Your task to perform on an android device: open app "Cash App" (install if not already installed) Image 0: 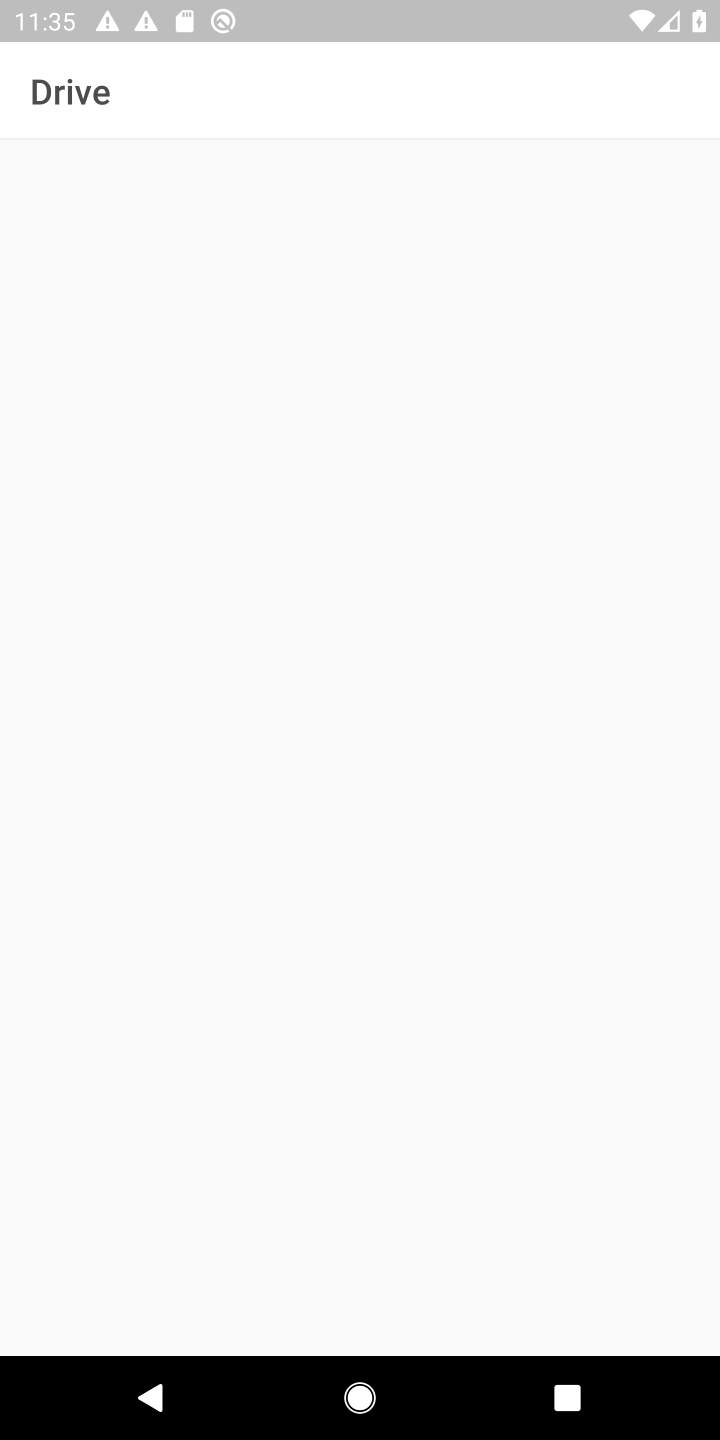
Step 0: press home button
Your task to perform on an android device: open app "Cash App" (install if not already installed) Image 1: 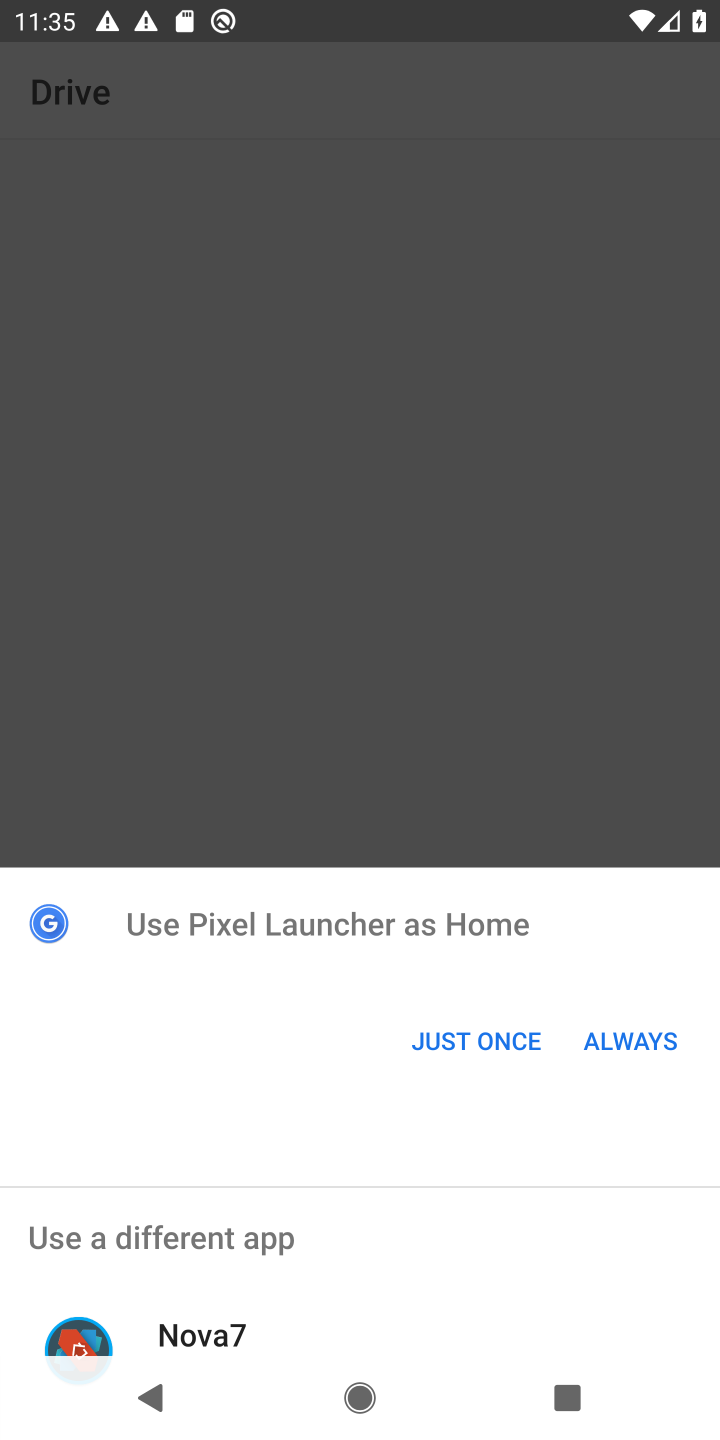
Step 1: press home button
Your task to perform on an android device: open app "Cash App" (install if not already installed) Image 2: 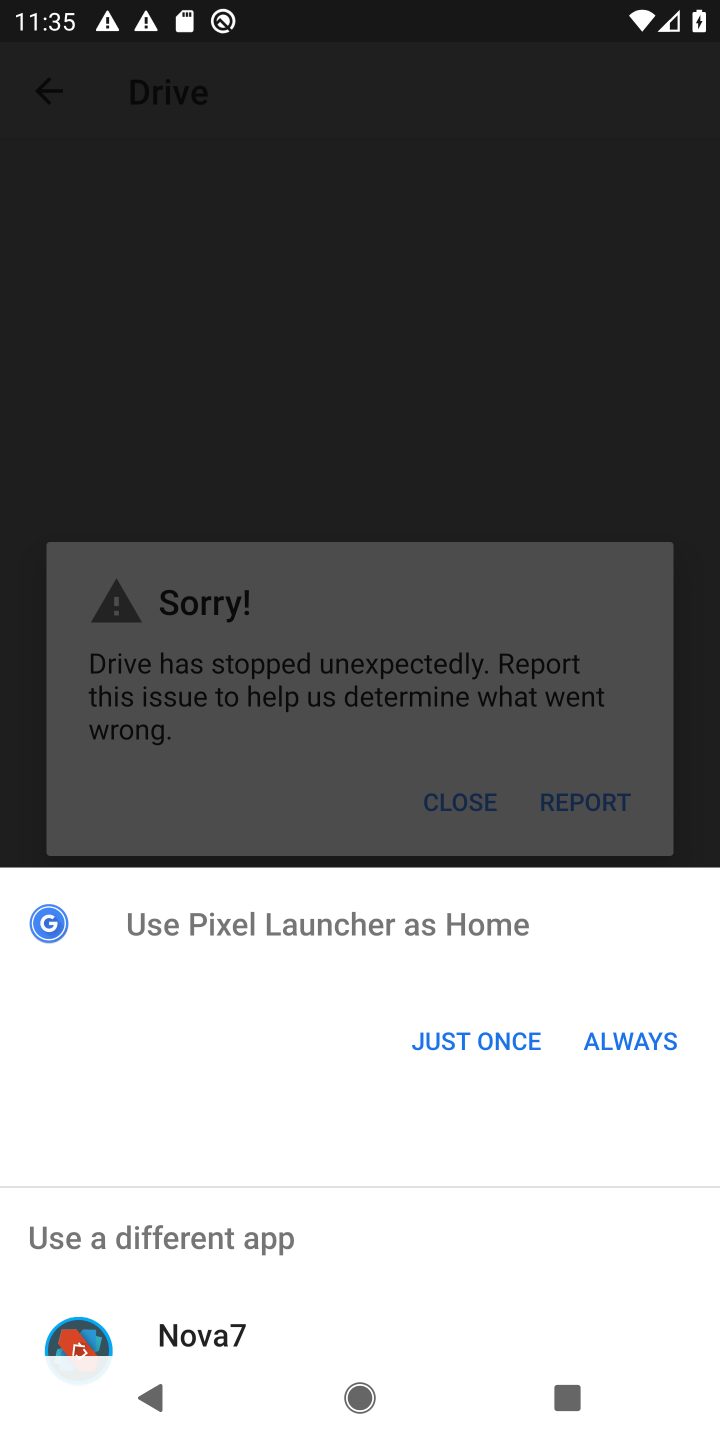
Step 2: press home button
Your task to perform on an android device: open app "Cash App" (install if not already installed) Image 3: 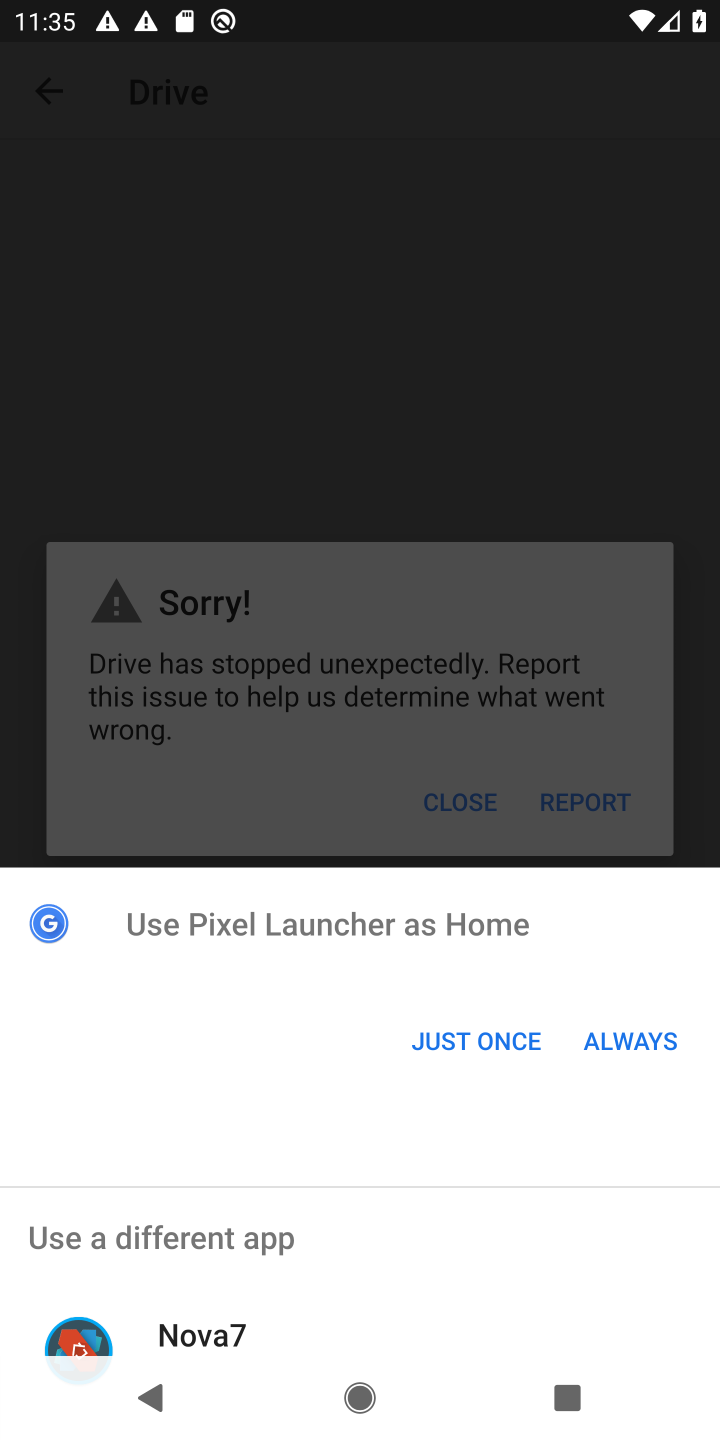
Step 3: press home button
Your task to perform on an android device: open app "Cash App" (install if not already installed) Image 4: 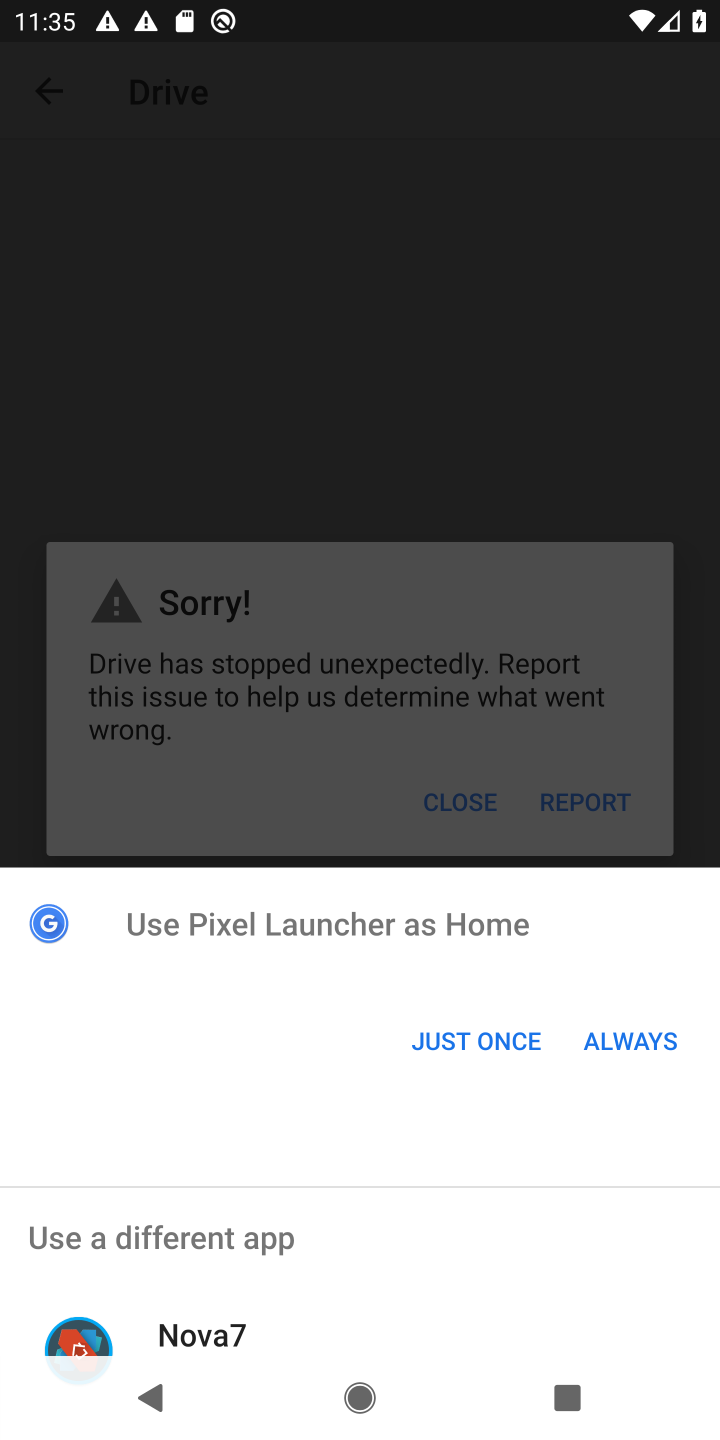
Step 4: click (523, 1032)
Your task to perform on an android device: open app "Cash App" (install if not already installed) Image 5: 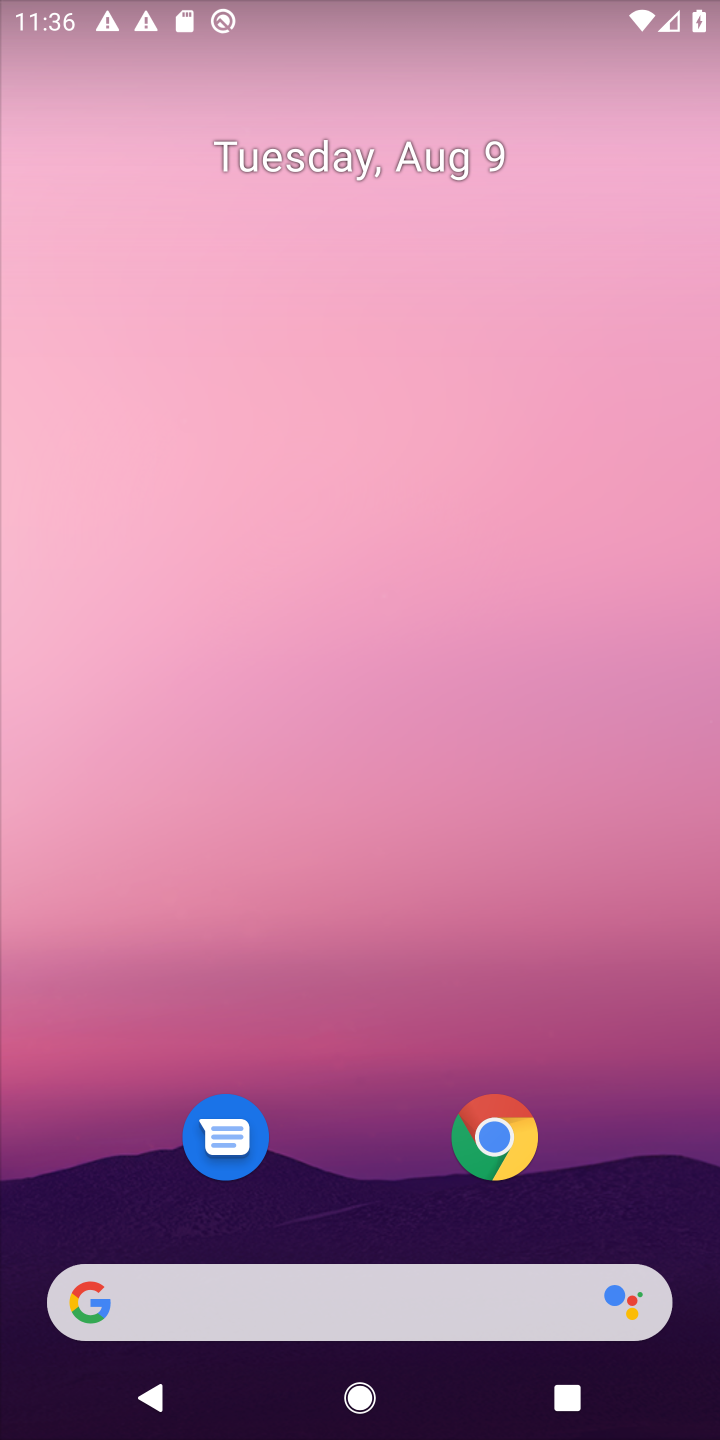
Step 5: drag from (363, 1187) to (416, 229)
Your task to perform on an android device: open app "Cash App" (install if not already installed) Image 6: 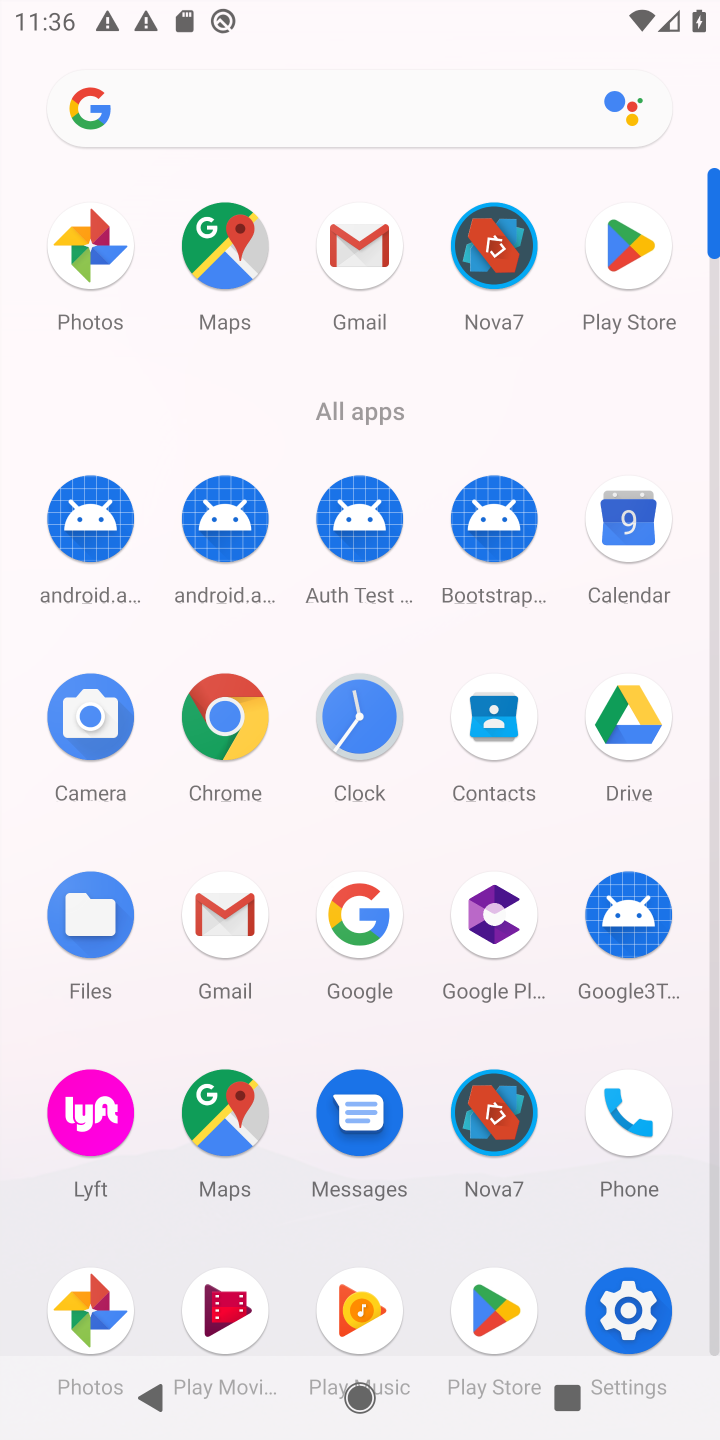
Step 6: click (627, 243)
Your task to perform on an android device: open app "Cash App" (install if not already installed) Image 7: 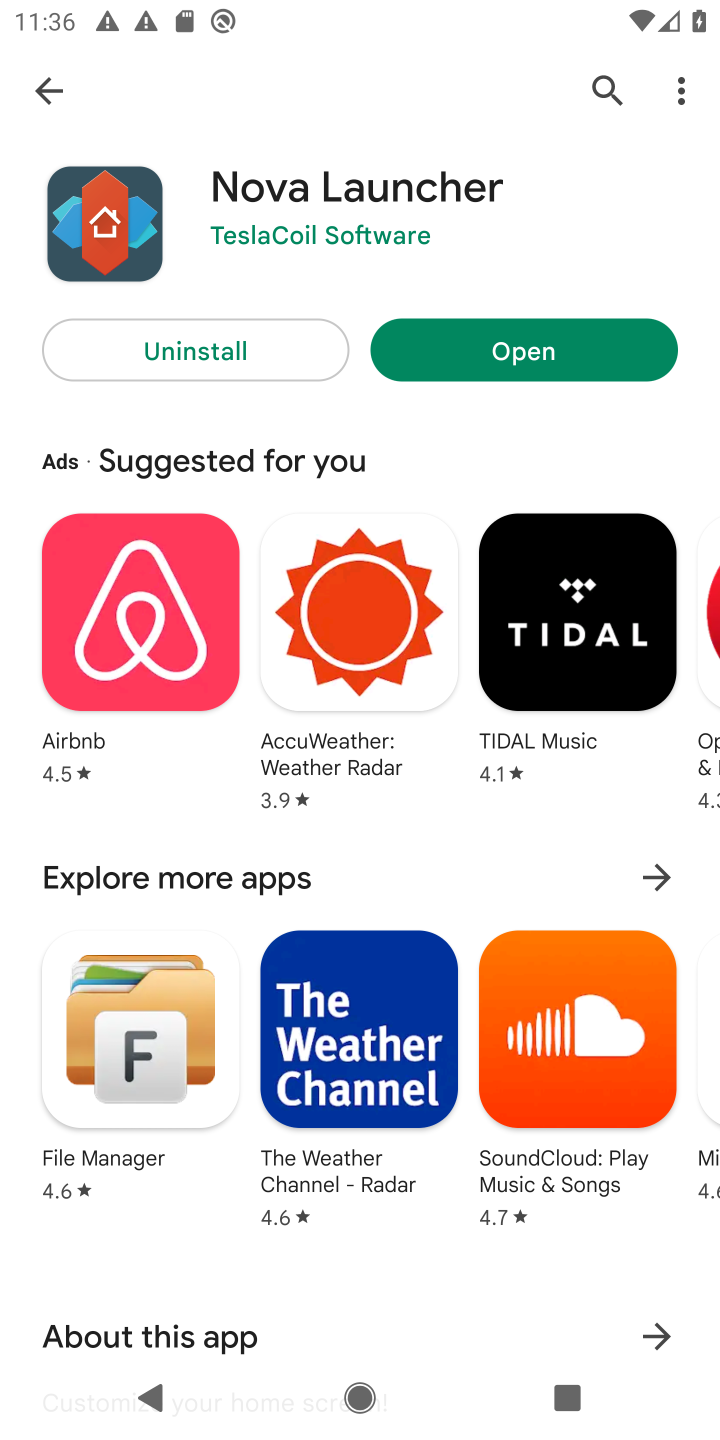
Step 7: click (52, 89)
Your task to perform on an android device: open app "Cash App" (install if not already installed) Image 8: 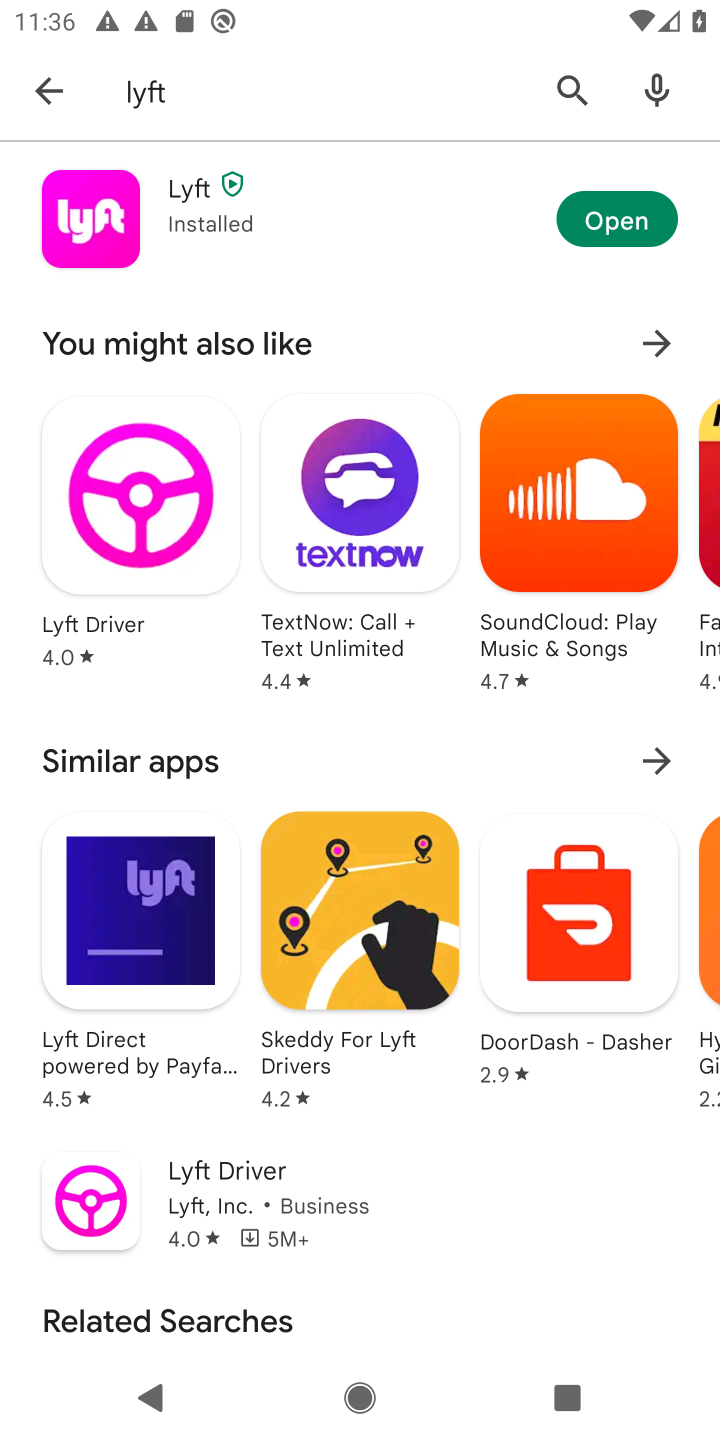
Step 8: click (573, 81)
Your task to perform on an android device: open app "Cash App" (install if not already installed) Image 9: 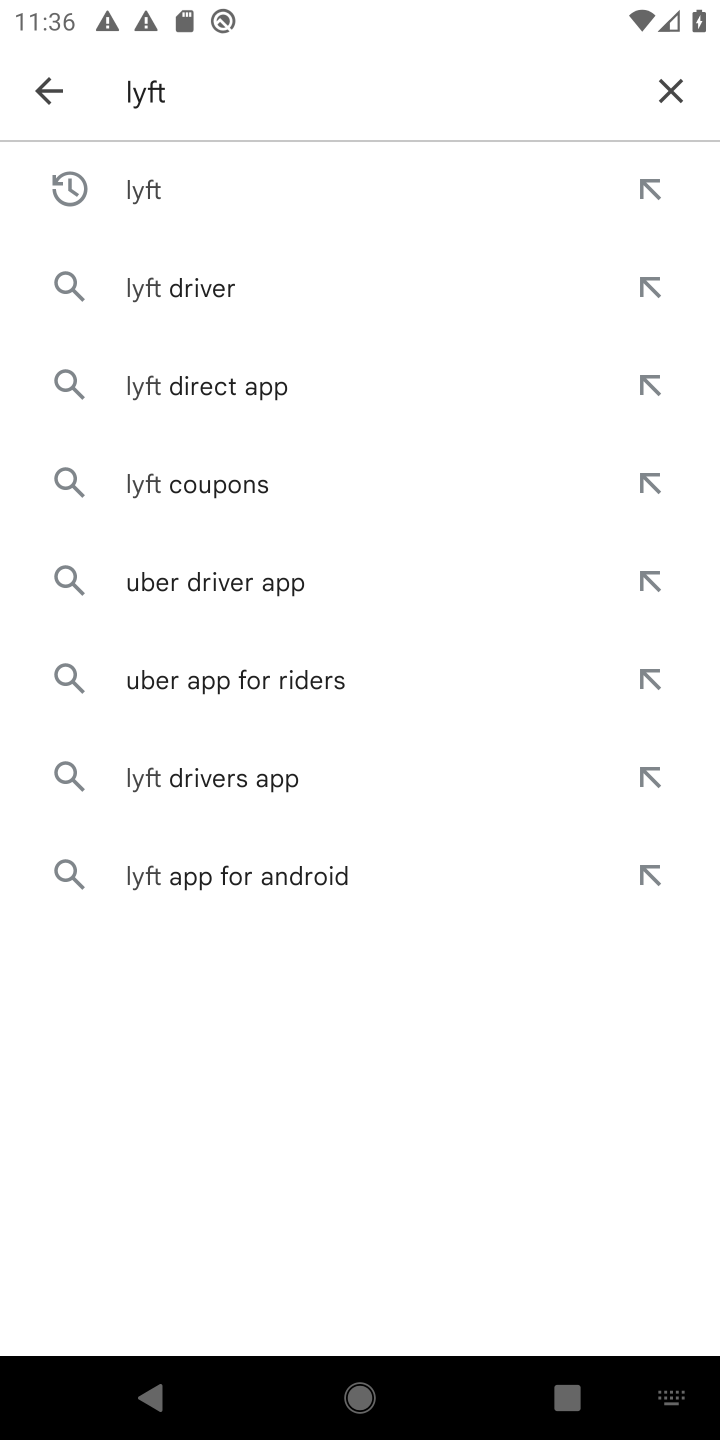
Step 9: click (665, 94)
Your task to perform on an android device: open app "Cash App" (install if not already installed) Image 10: 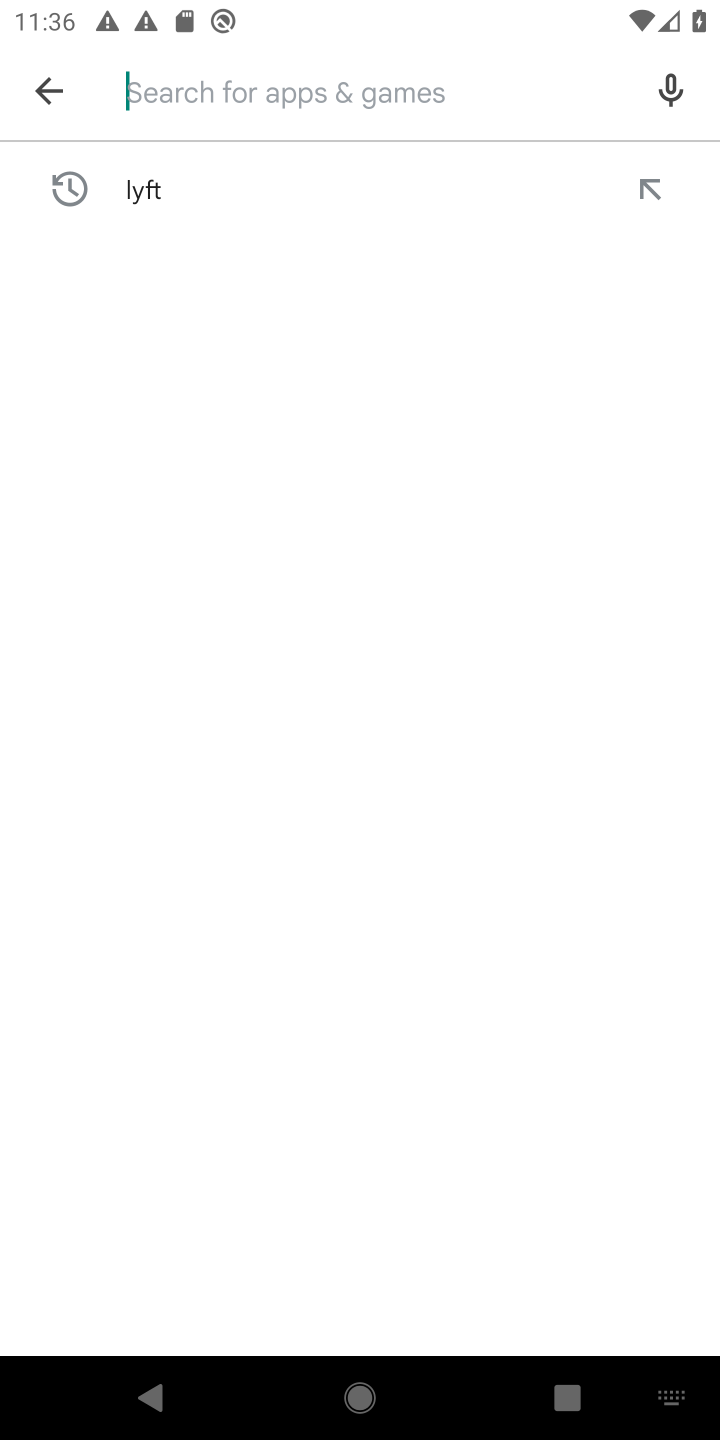
Step 10: type "Cash App"
Your task to perform on an android device: open app "Cash App" (install if not already installed) Image 11: 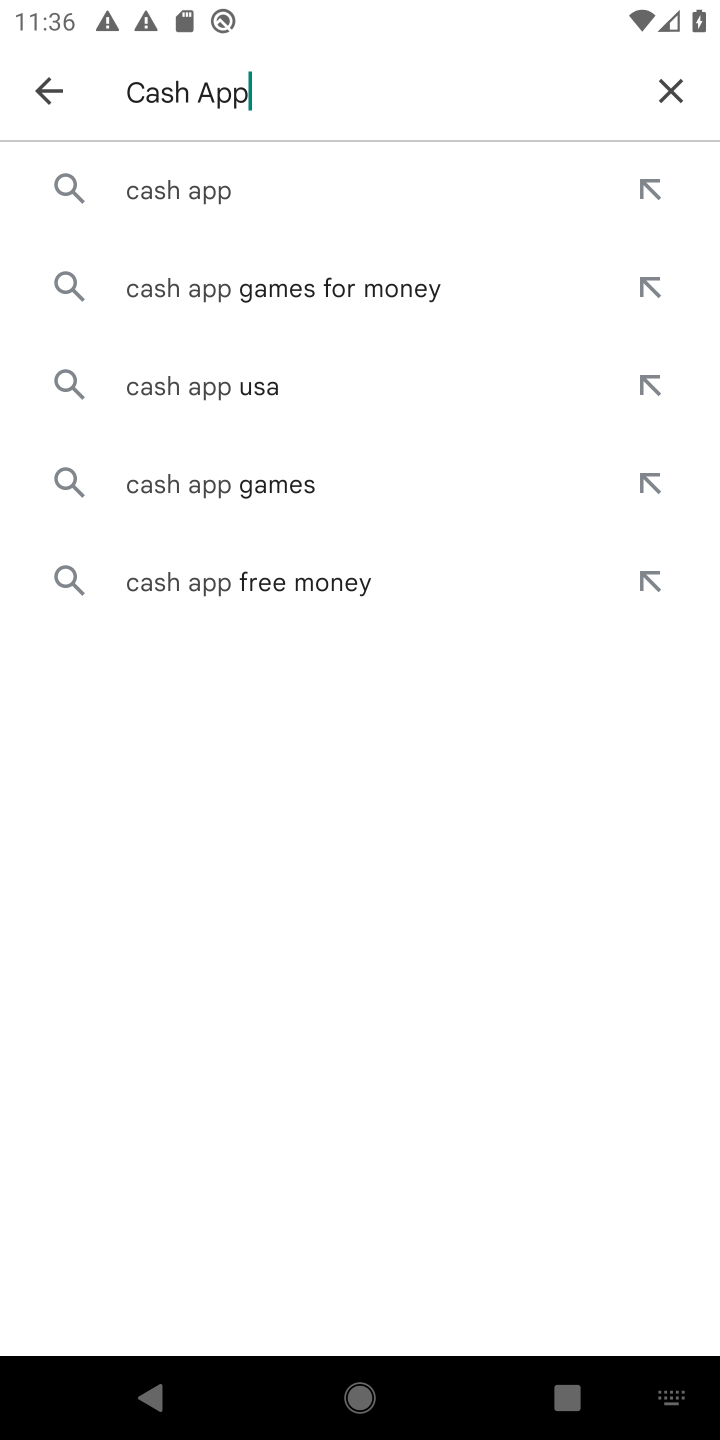
Step 11: click (149, 188)
Your task to perform on an android device: open app "Cash App" (install if not already installed) Image 12: 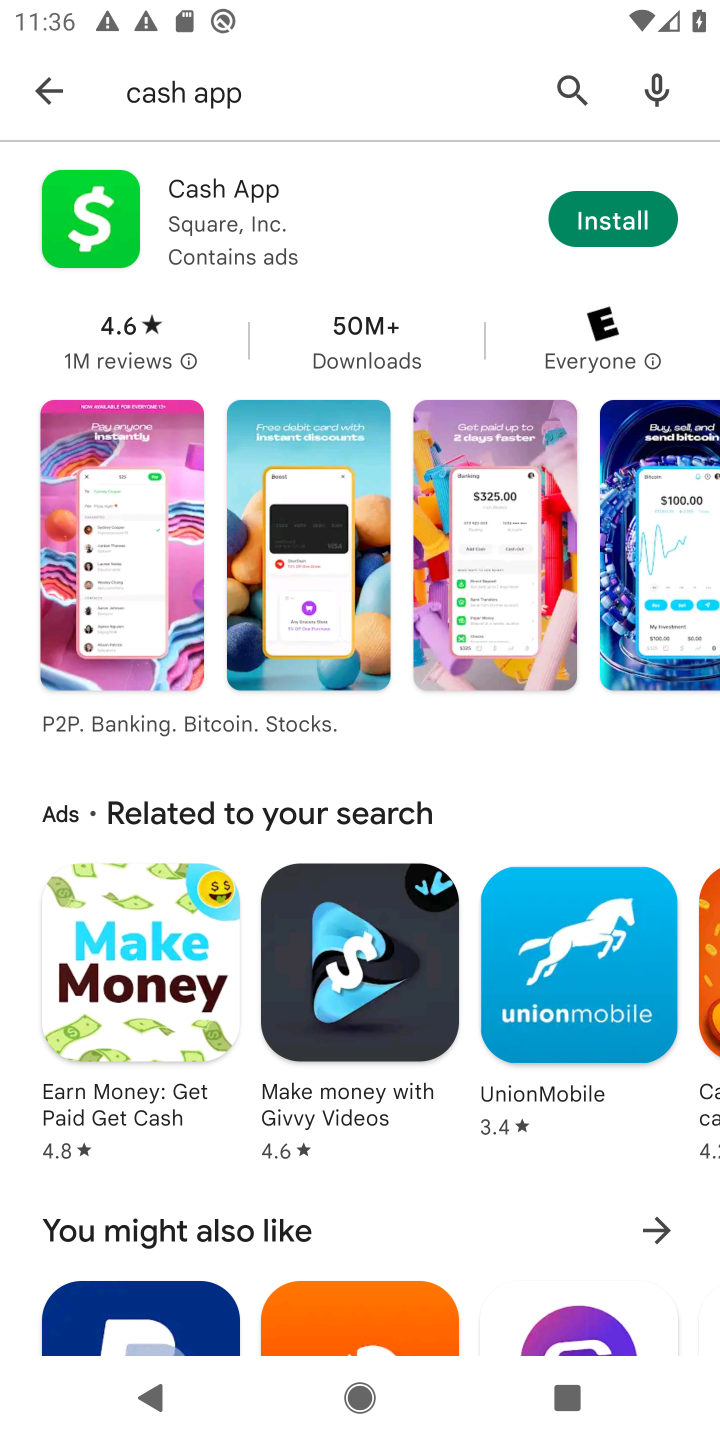
Step 12: click (610, 217)
Your task to perform on an android device: open app "Cash App" (install if not already installed) Image 13: 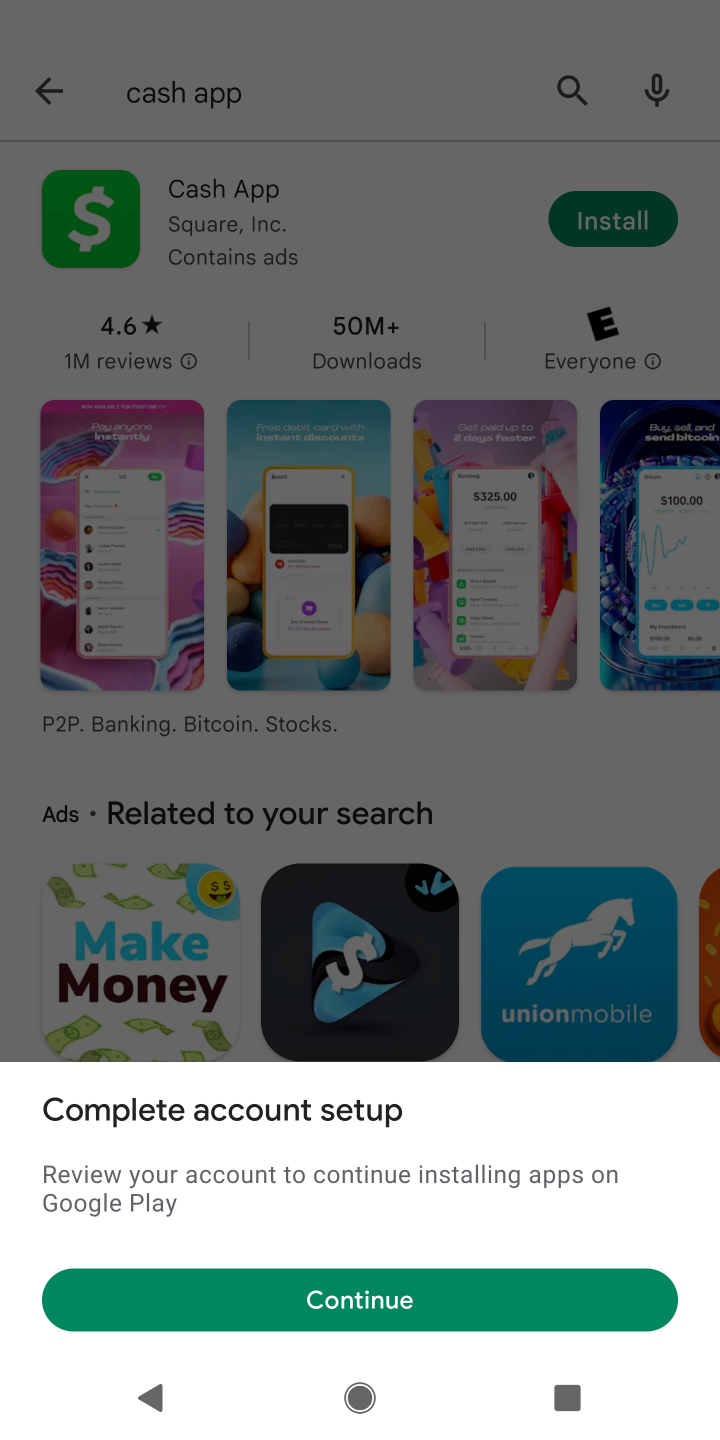
Step 13: click (365, 1298)
Your task to perform on an android device: open app "Cash App" (install if not already installed) Image 14: 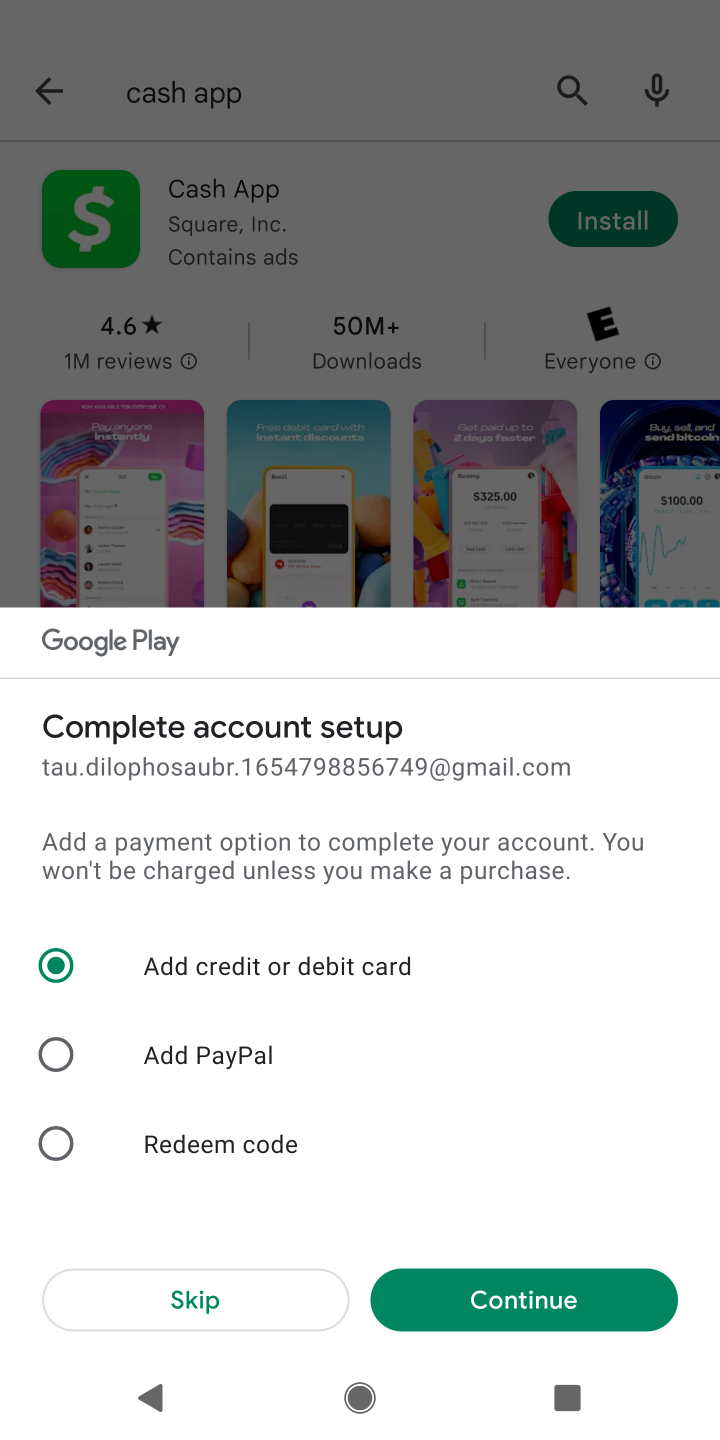
Step 14: click (233, 1298)
Your task to perform on an android device: open app "Cash App" (install if not already installed) Image 15: 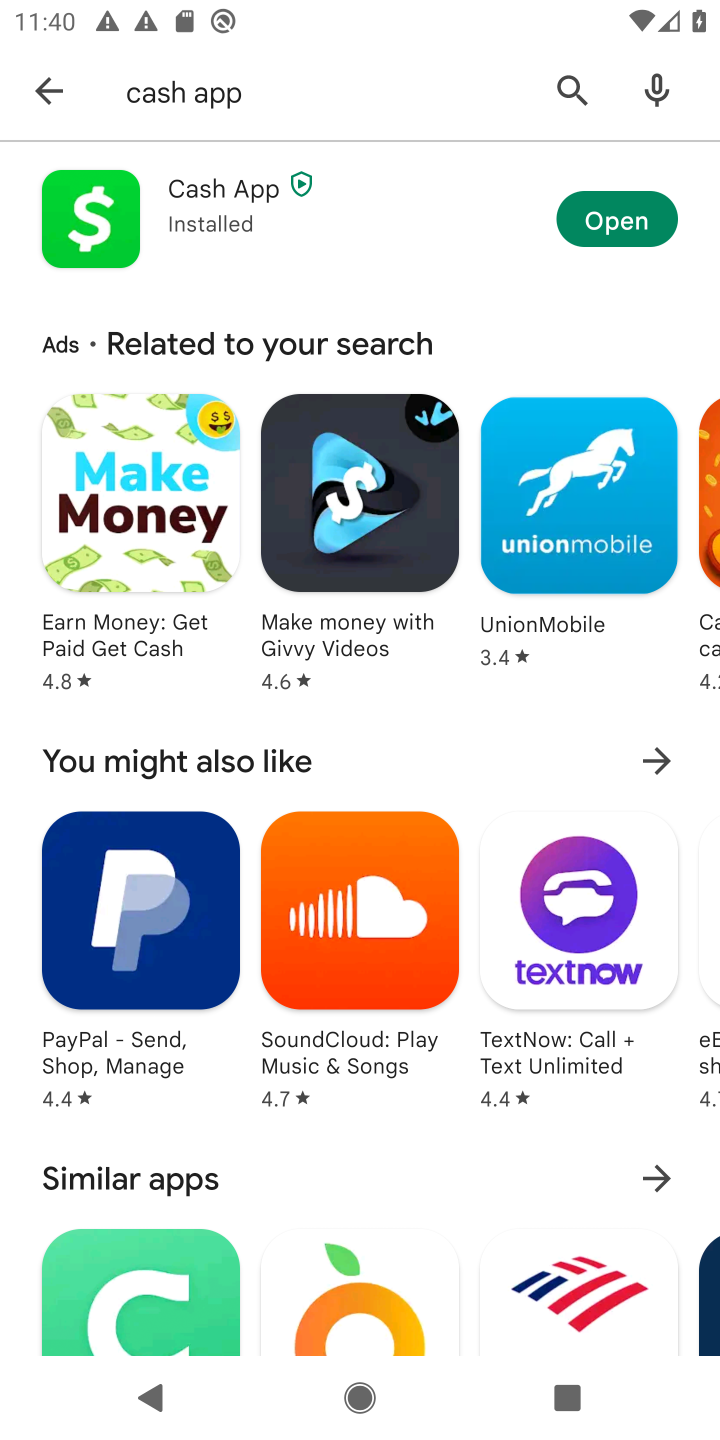
Step 15: click (647, 218)
Your task to perform on an android device: open app "Cash App" (install if not already installed) Image 16: 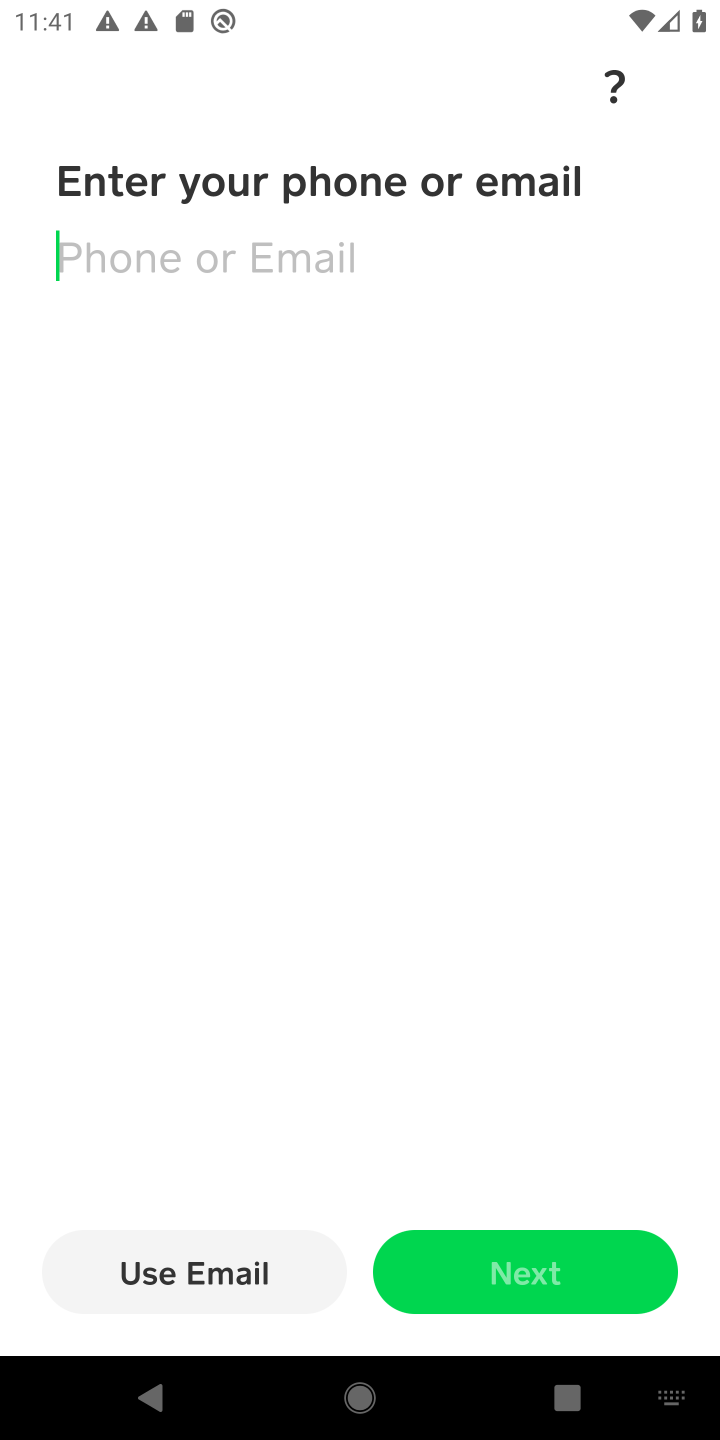
Step 16: click (194, 1272)
Your task to perform on an android device: open app "Cash App" (install if not already installed) Image 17: 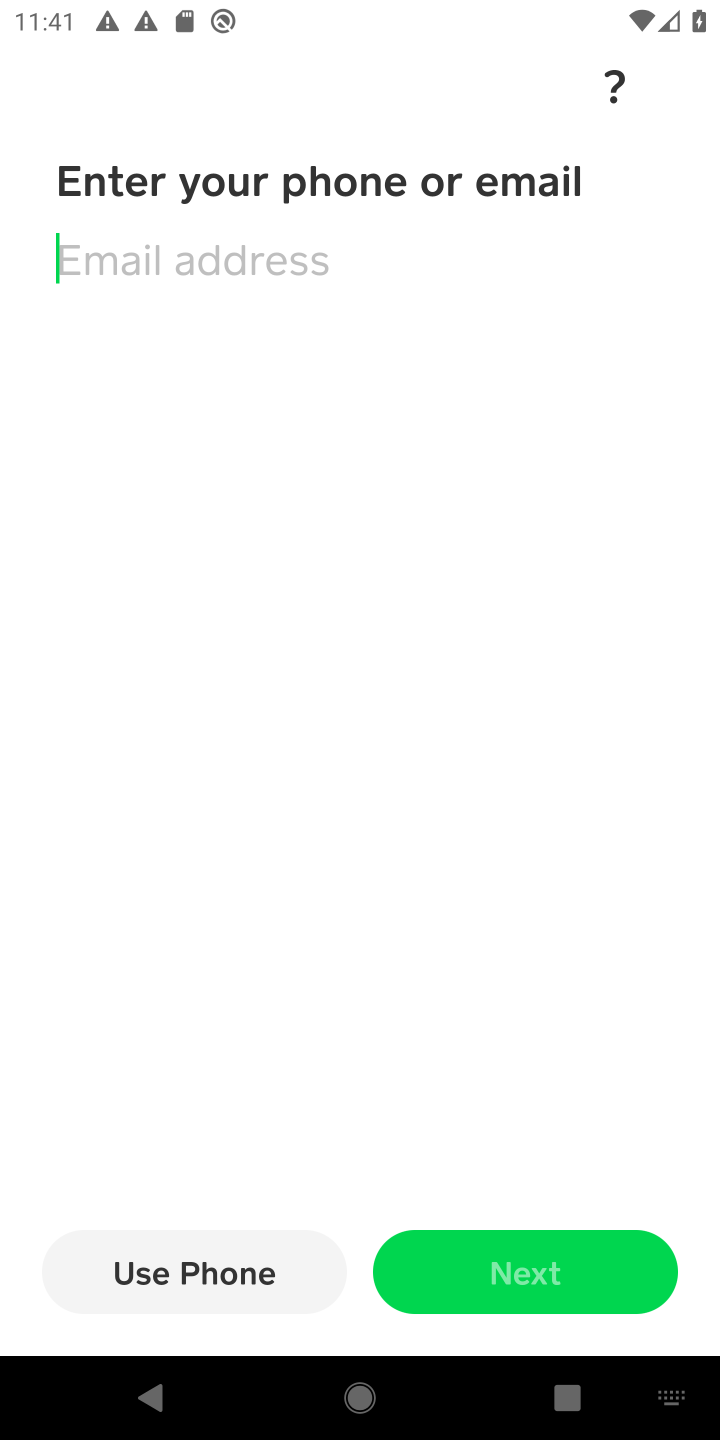
Step 17: task complete